Your task to perform on an android device: remove spam from my inbox in the gmail app Image 0: 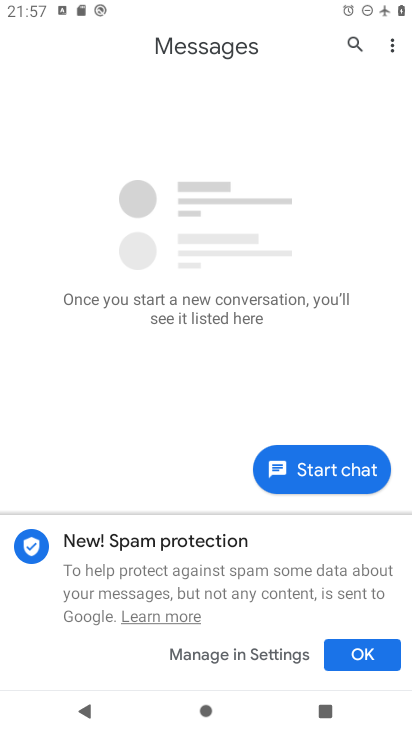
Step 0: press home button
Your task to perform on an android device: remove spam from my inbox in the gmail app Image 1: 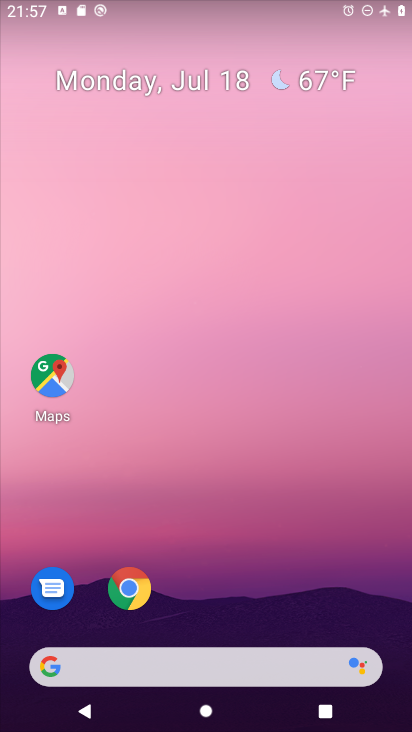
Step 1: drag from (381, 625) to (341, 102)
Your task to perform on an android device: remove spam from my inbox in the gmail app Image 2: 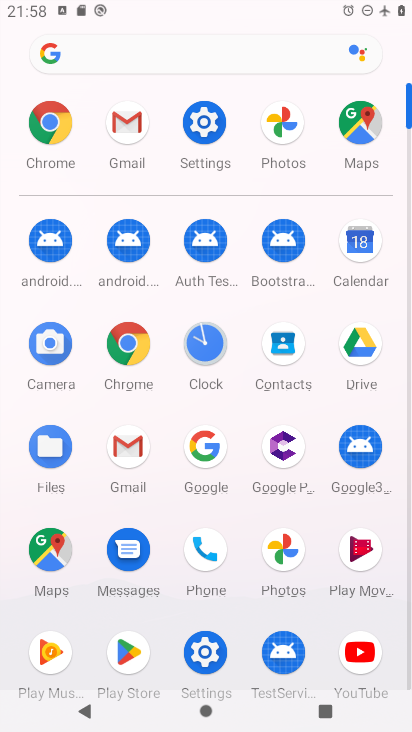
Step 2: click (127, 445)
Your task to perform on an android device: remove spam from my inbox in the gmail app Image 3: 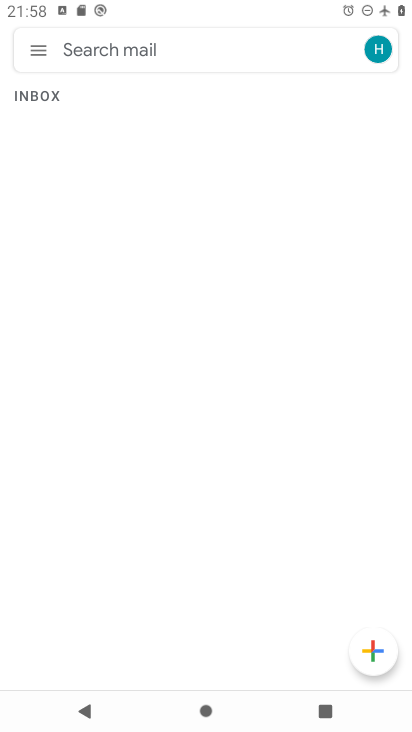
Step 3: click (37, 46)
Your task to perform on an android device: remove spam from my inbox in the gmail app Image 4: 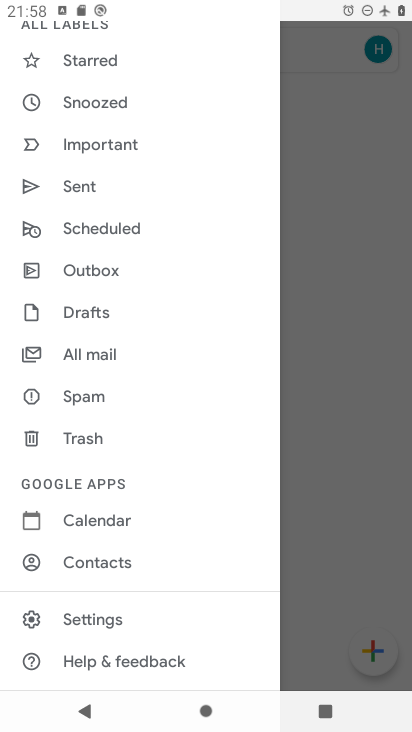
Step 4: click (80, 389)
Your task to perform on an android device: remove spam from my inbox in the gmail app Image 5: 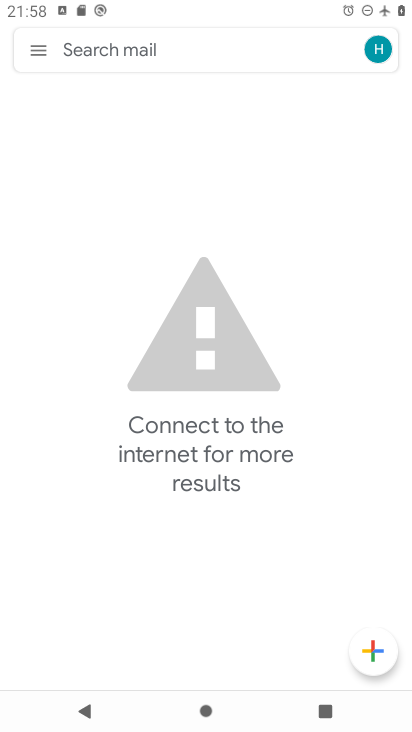
Step 5: task complete